Your task to perform on an android device: empty trash in the gmail app Image 0: 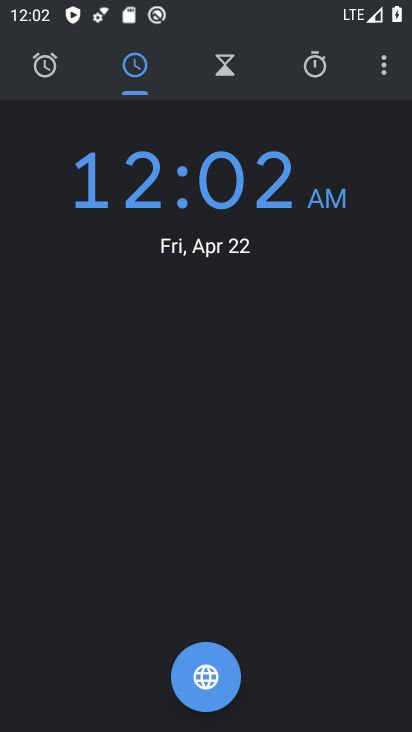
Step 0: press back button
Your task to perform on an android device: empty trash in the gmail app Image 1: 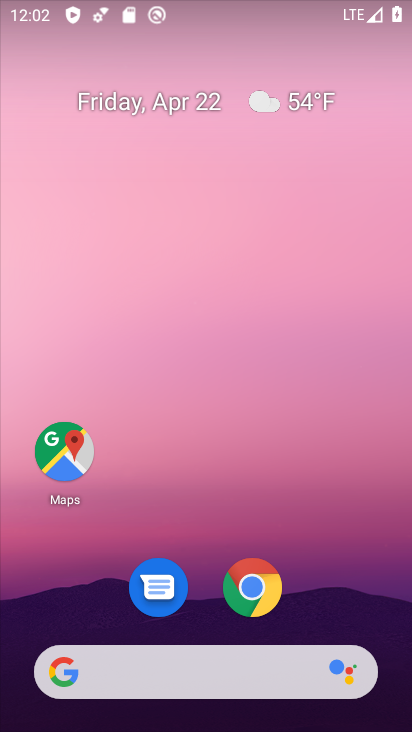
Step 1: drag from (187, 449) to (255, 48)
Your task to perform on an android device: empty trash in the gmail app Image 2: 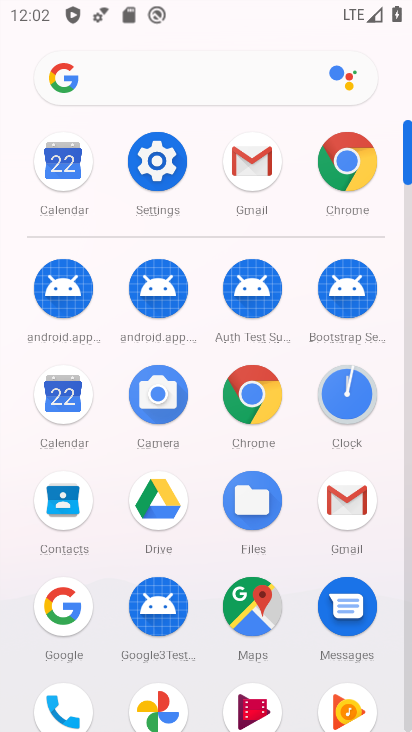
Step 2: click (244, 155)
Your task to perform on an android device: empty trash in the gmail app Image 3: 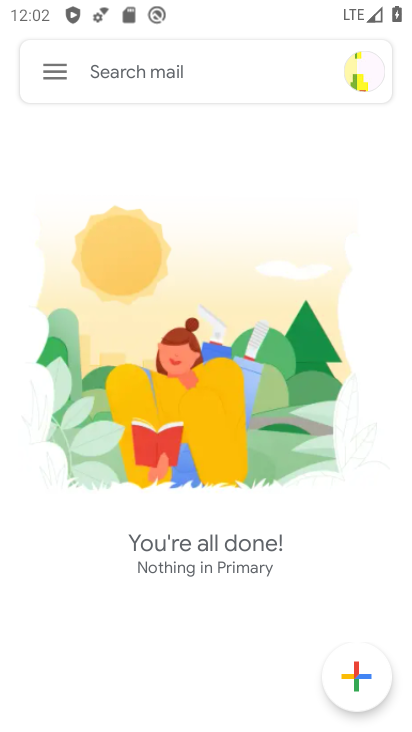
Step 3: click (60, 82)
Your task to perform on an android device: empty trash in the gmail app Image 4: 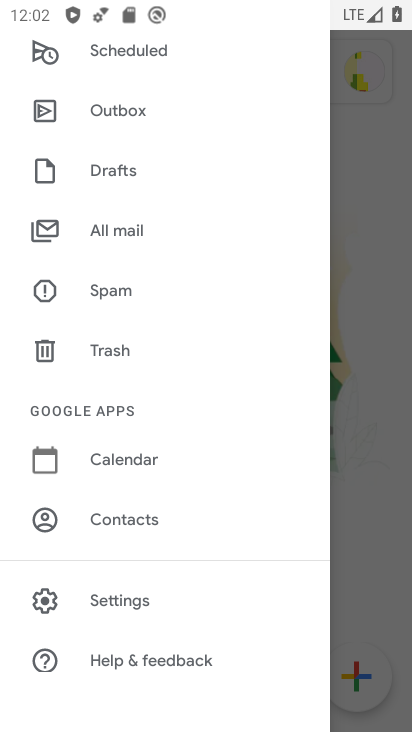
Step 4: click (122, 349)
Your task to perform on an android device: empty trash in the gmail app Image 5: 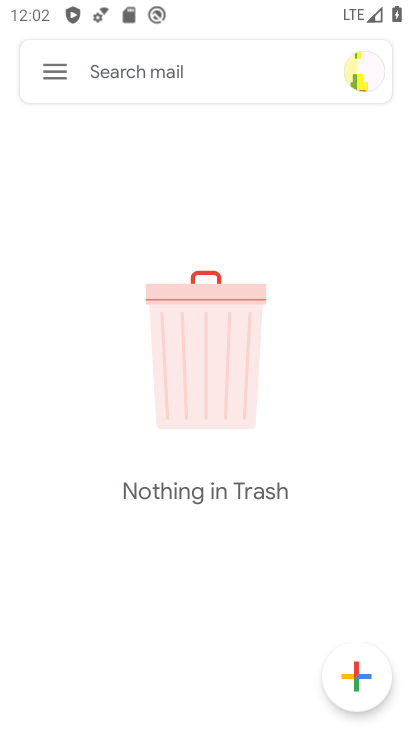
Step 5: task complete